Your task to perform on an android device: Go to Android settings Image 0: 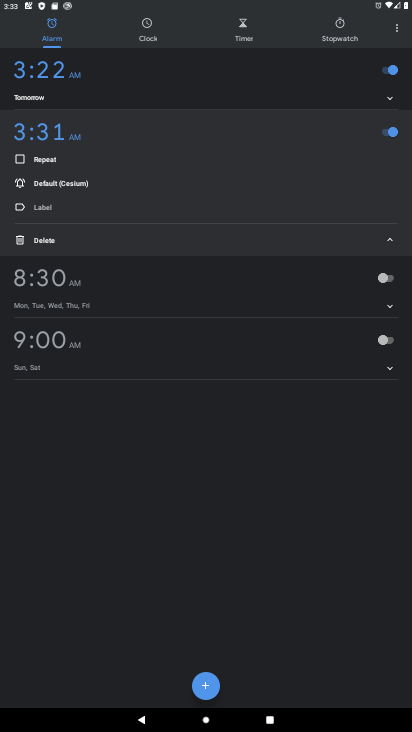
Step 0: press home button
Your task to perform on an android device: Go to Android settings Image 1: 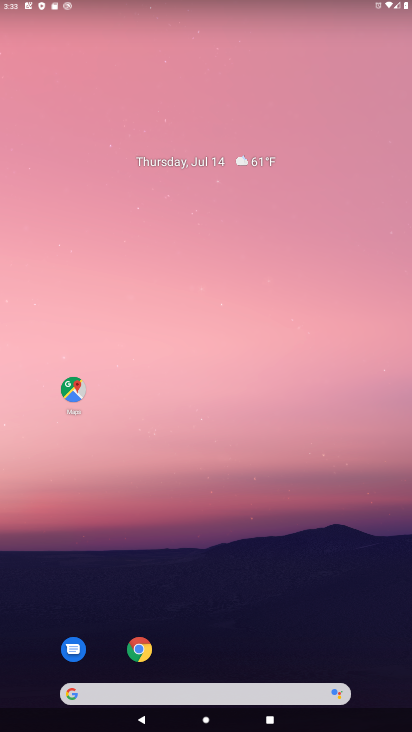
Step 1: drag from (238, 672) to (211, 142)
Your task to perform on an android device: Go to Android settings Image 2: 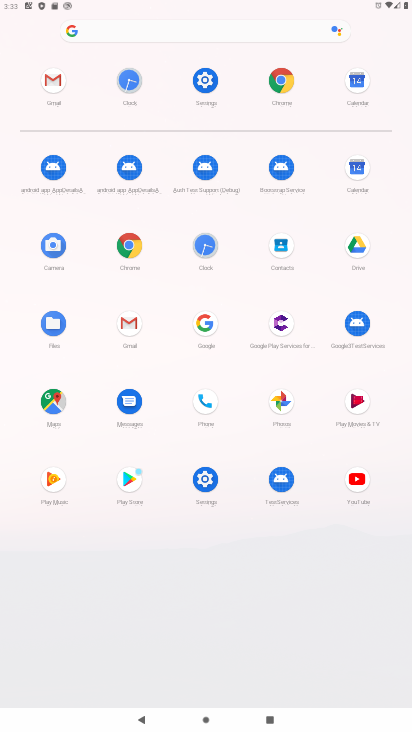
Step 2: click (207, 84)
Your task to perform on an android device: Go to Android settings Image 3: 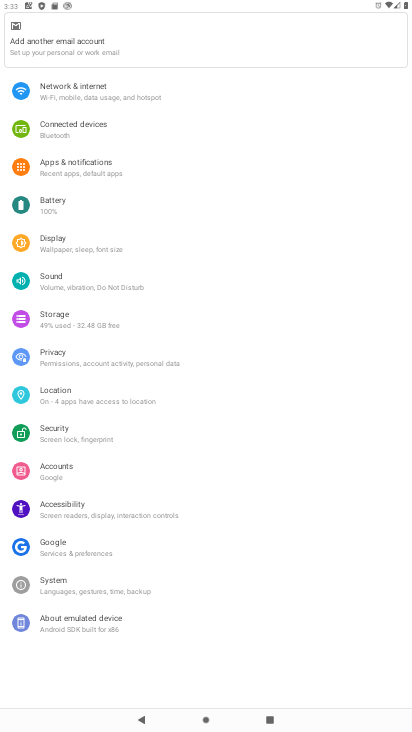
Step 3: click (84, 90)
Your task to perform on an android device: Go to Android settings Image 4: 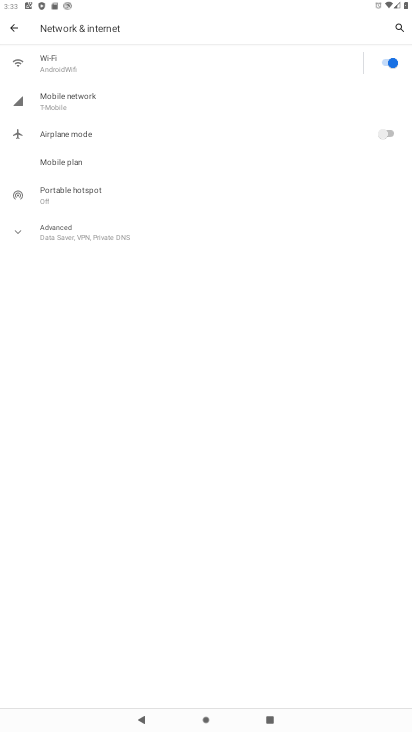
Step 4: click (14, 24)
Your task to perform on an android device: Go to Android settings Image 5: 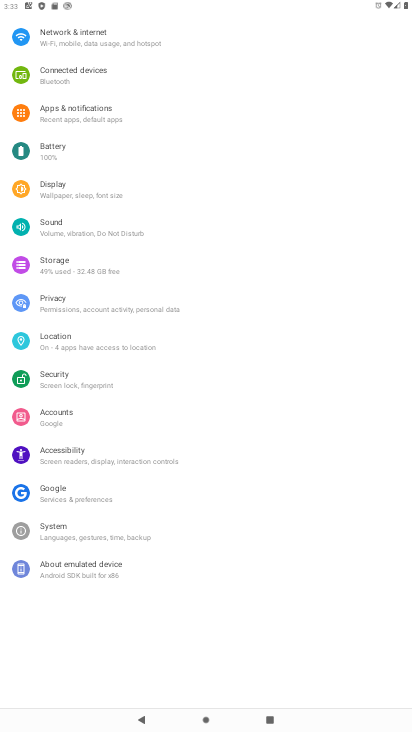
Step 5: task complete